Your task to perform on an android device: turn off smart reply in the gmail app Image 0: 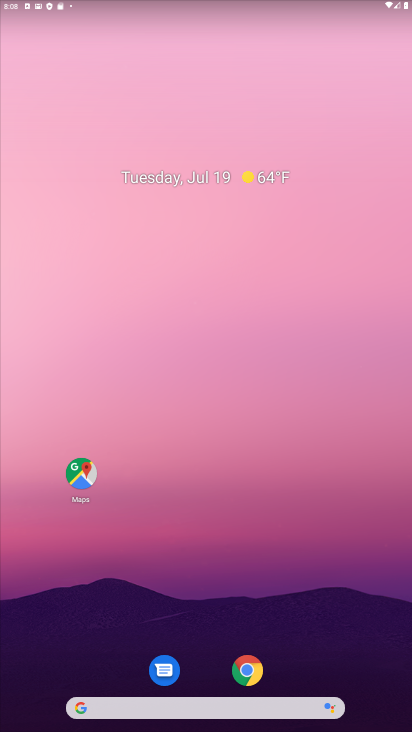
Step 0: drag from (277, 727) to (195, 101)
Your task to perform on an android device: turn off smart reply in the gmail app Image 1: 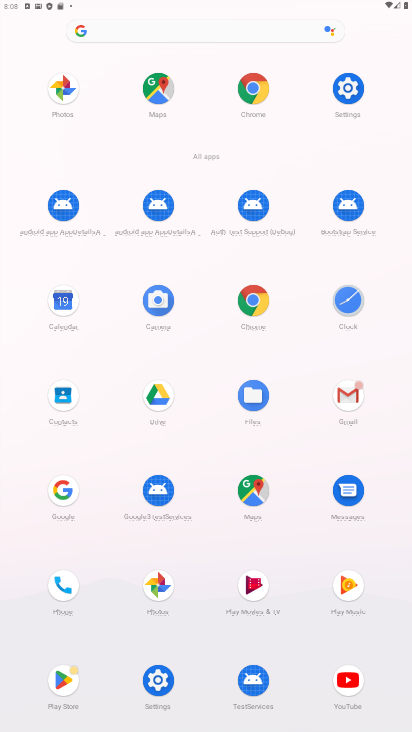
Step 1: click (340, 396)
Your task to perform on an android device: turn off smart reply in the gmail app Image 2: 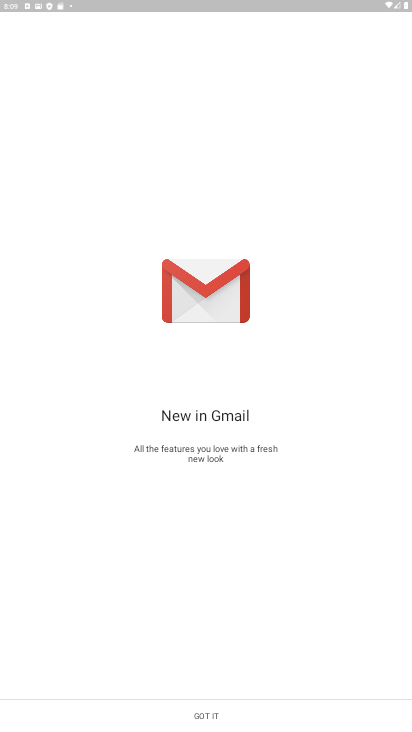
Step 2: click (221, 713)
Your task to perform on an android device: turn off smart reply in the gmail app Image 3: 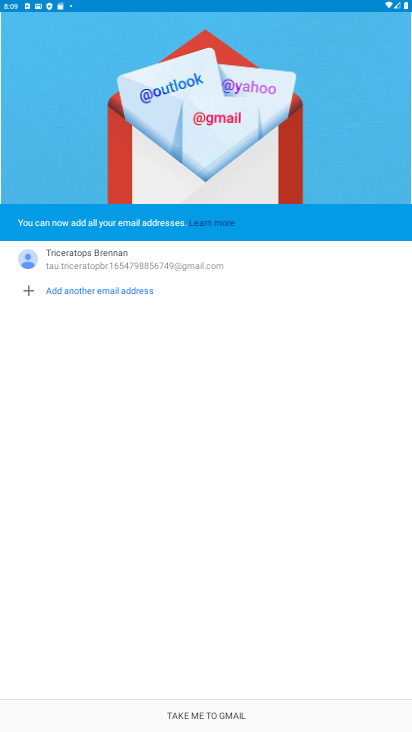
Step 3: click (196, 708)
Your task to perform on an android device: turn off smart reply in the gmail app Image 4: 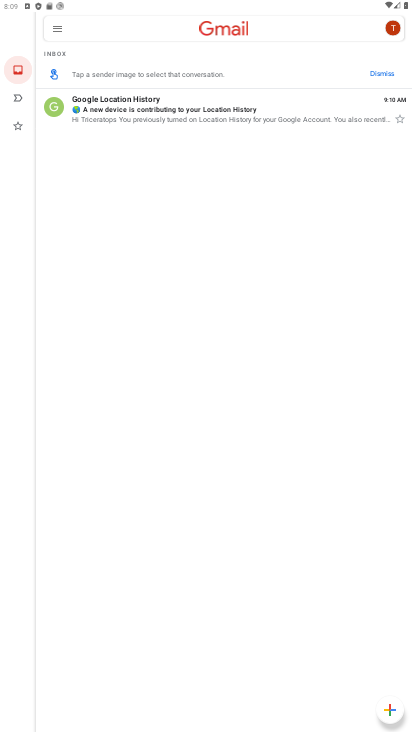
Step 4: click (52, 26)
Your task to perform on an android device: turn off smart reply in the gmail app Image 5: 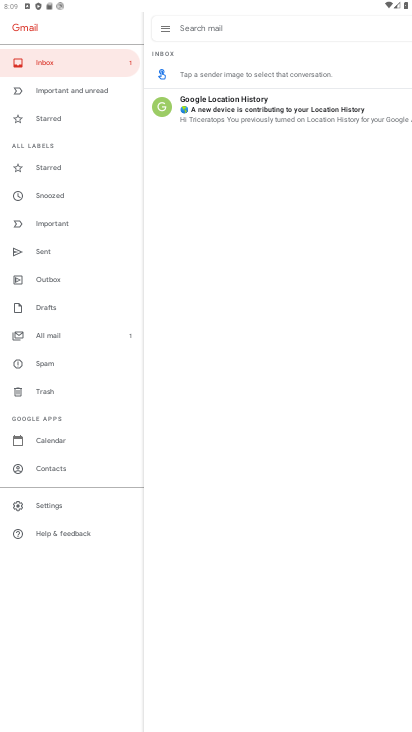
Step 5: click (79, 503)
Your task to perform on an android device: turn off smart reply in the gmail app Image 6: 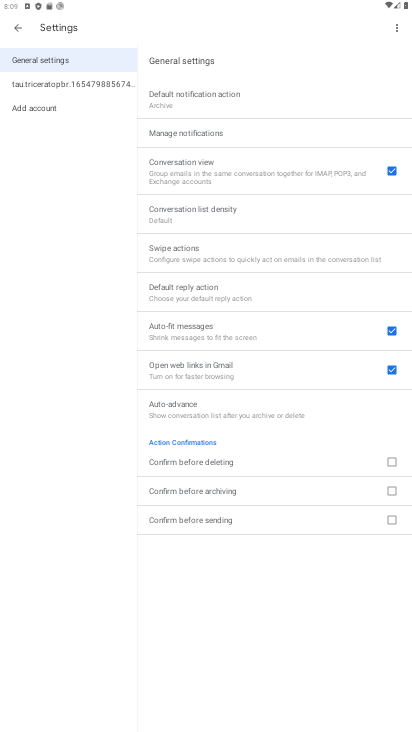
Step 6: click (78, 83)
Your task to perform on an android device: turn off smart reply in the gmail app Image 7: 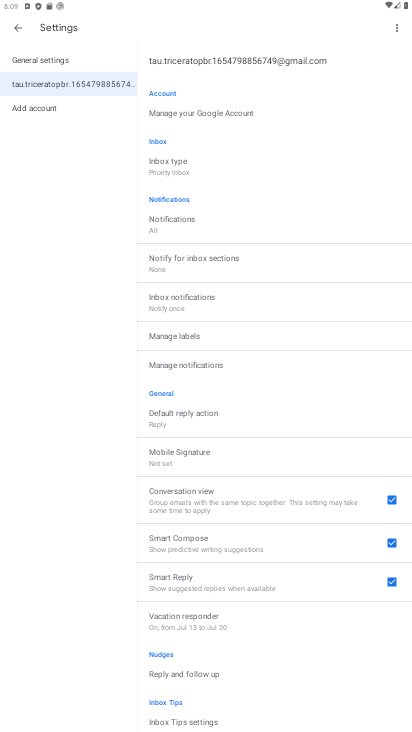
Step 7: click (392, 581)
Your task to perform on an android device: turn off smart reply in the gmail app Image 8: 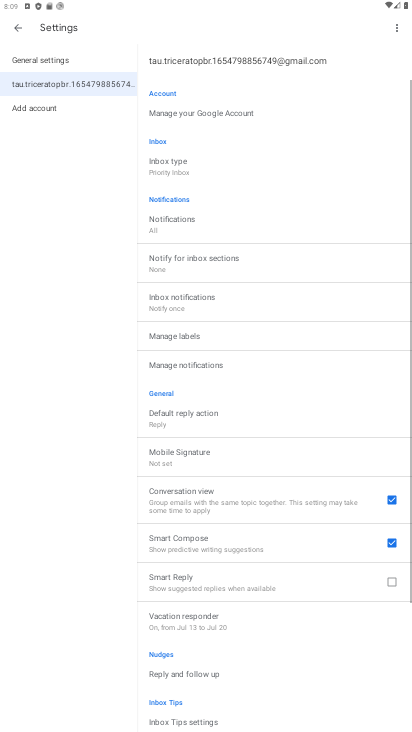
Step 8: task complete